Your task to perform on an android device: change text size in settings app Image 0: 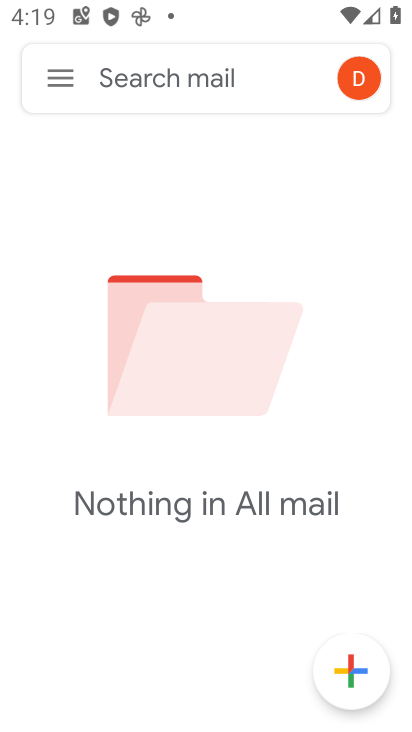
Step 0: press home button
Your task to perform on an android device: change text size in settings app Image 1: 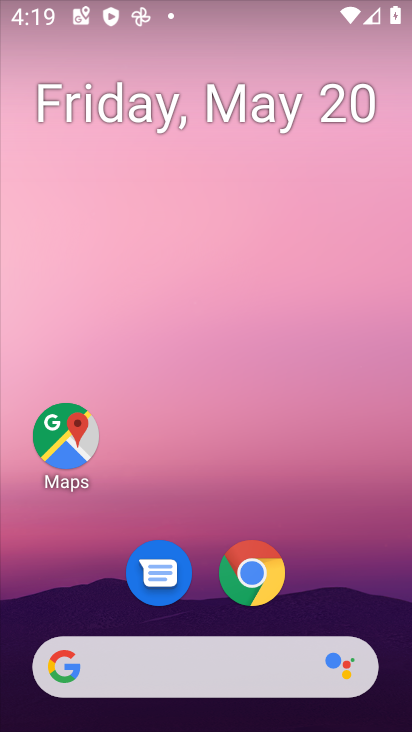
Step 1: drag from (383, 614) to (355, 67)
Your task to perform on an android device: change text size in settings app Image 2: 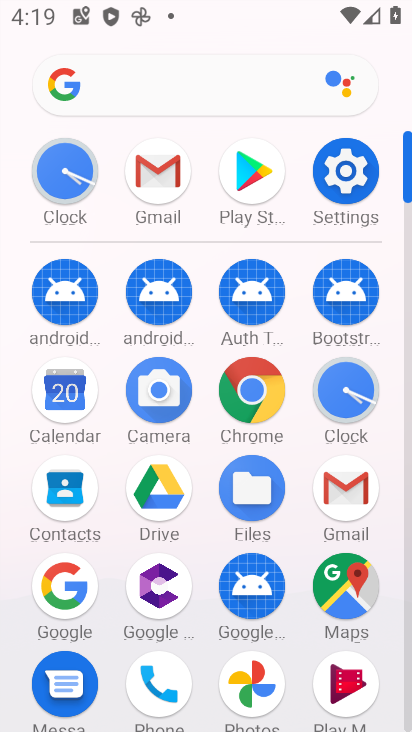
Step 2: click (409, 707)
Your task to perform on an android device: change text size in settings app Image 3: 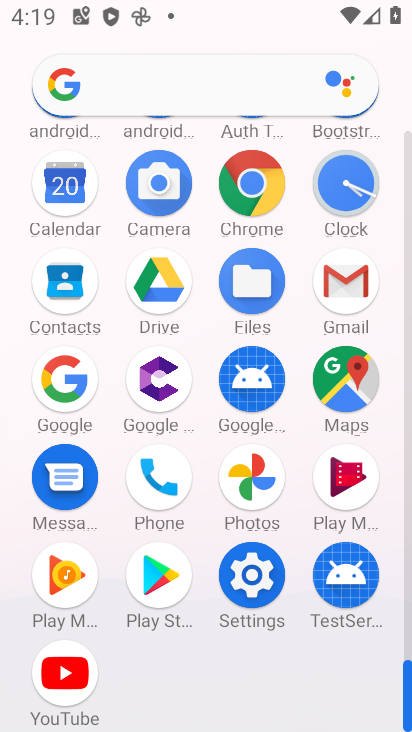
Step 3: click (250, 576)
Your task to perform on an android device: change text size in settings app Image 4: 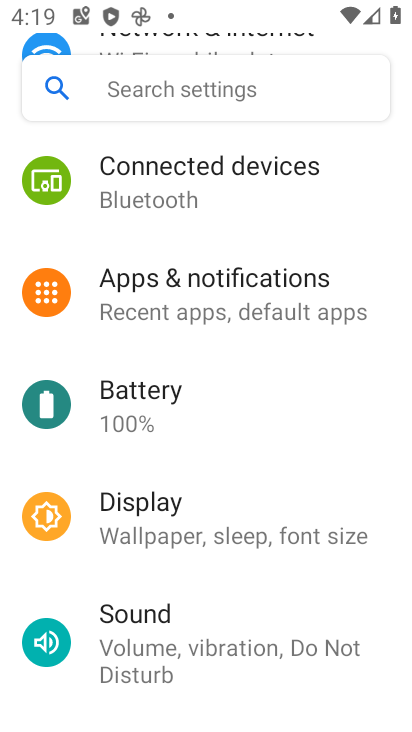
Step 4: click (161, 522)
Your task to perform on an android device: change text size in settings app Image 5: 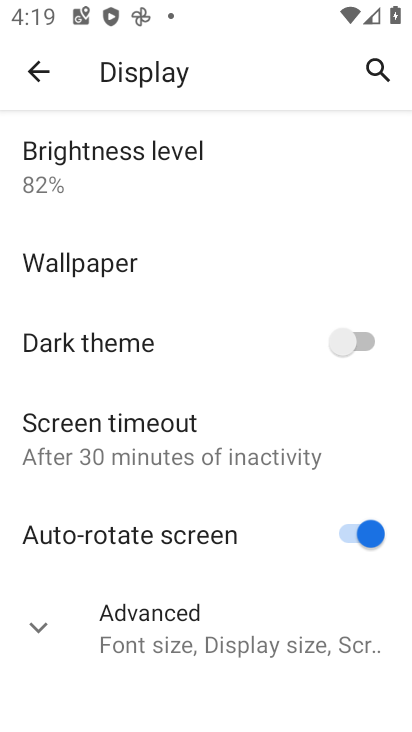
Step 5: click (29, 627)
Your task to perform on an android device: change text size in settings app Image 6: 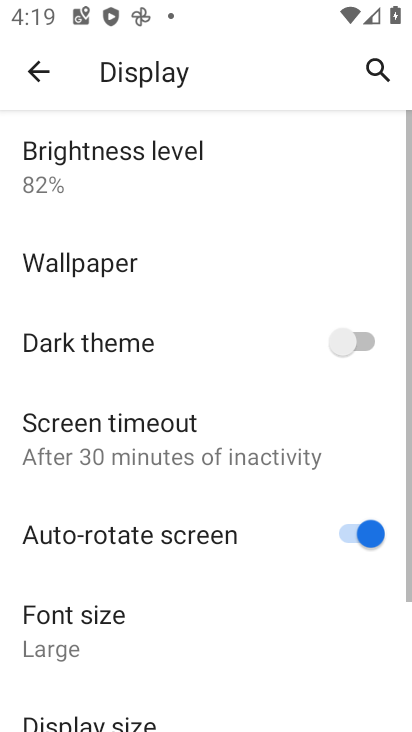
Step 6: drag from (275, 646) to (254, 280)
Your task to perform on an android device: change text size in settings app Image 7: 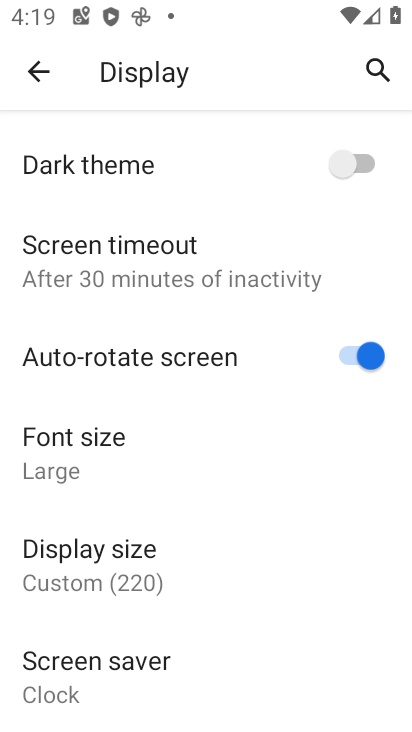
Step 7: drag from (269, 525) to (245, 192)
Your task to perform on an android device: change text size in settings app Image 8: 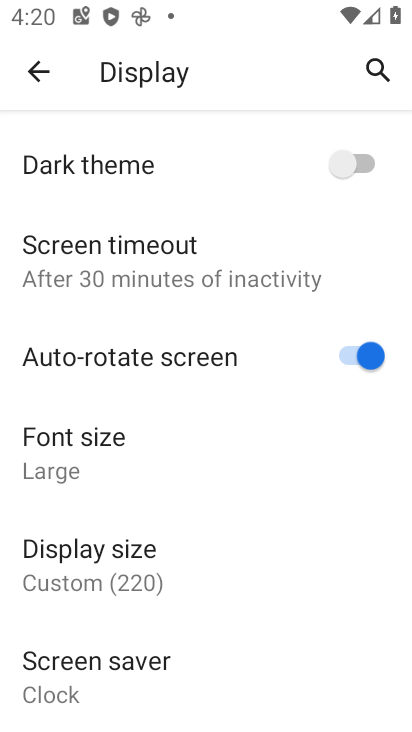
Step 8: click (53, 445)
Your task to perform on an android device: change text size in settings app Image 9: 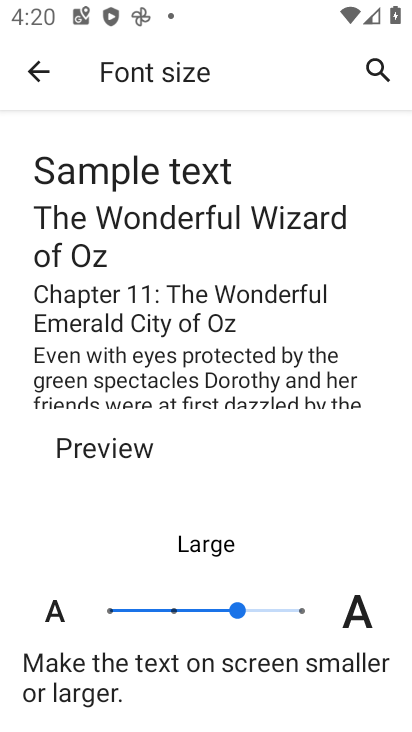
Step 9: click (172, 610)
Your task to perform on an android device: change text size in settings app Image 10: 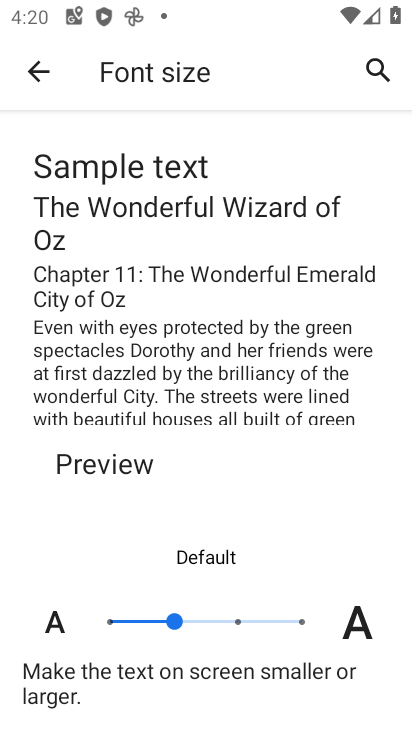
Step 10: task complete